Your task to perform on an android device: turn on improve location accuracy Image 0: 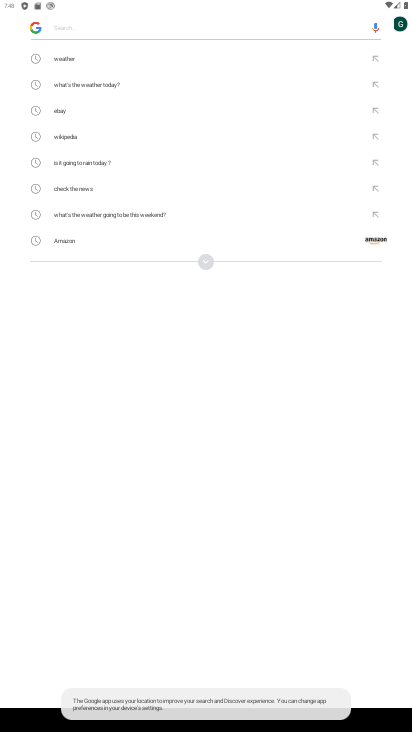
Step 0: press home button
Your task to perform on an android device: turn on improve location accuracy Image 1: 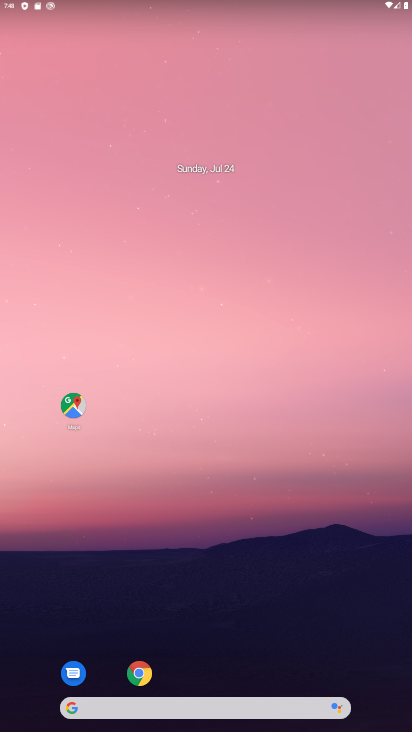
Step 1: drag from (270, 633) to (350, 6)
Your task to perform on an android device: turn on improve location accuracy Image 2: 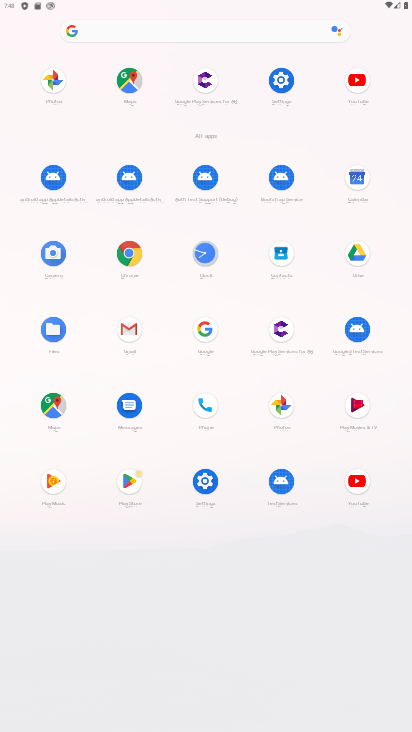
Step 2: click (283, 87)
Your task to perform on an android device: turn on improve location accuracy Image 3: 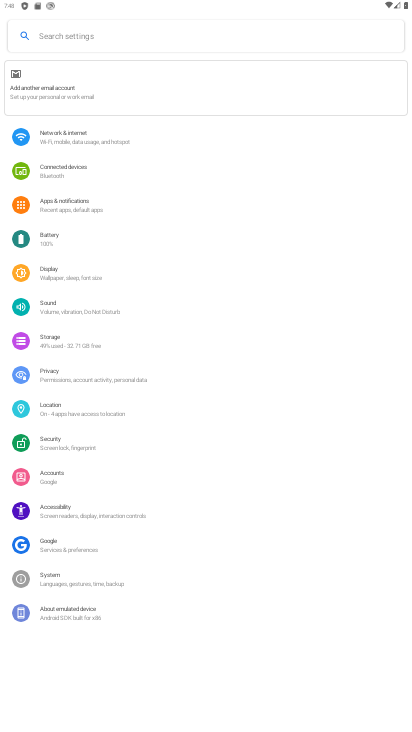
Step 3: click (83, 412)
Your task to perform on an android device: turn on improve location accuracy Image 4: 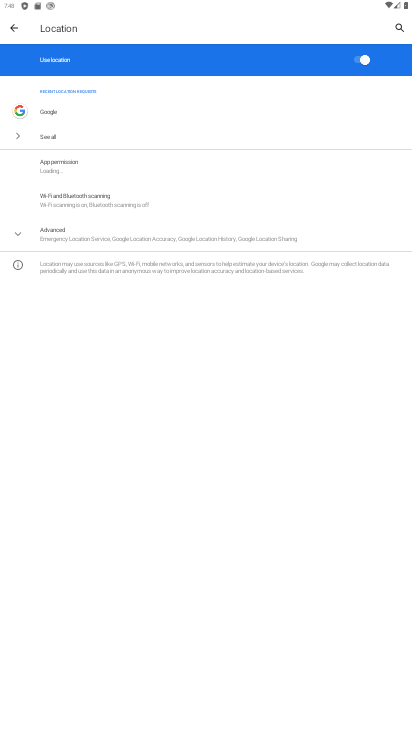
Step 4: click (130, 238)
Your task to perform on an android device: turn on improve location accuracy Image 5: 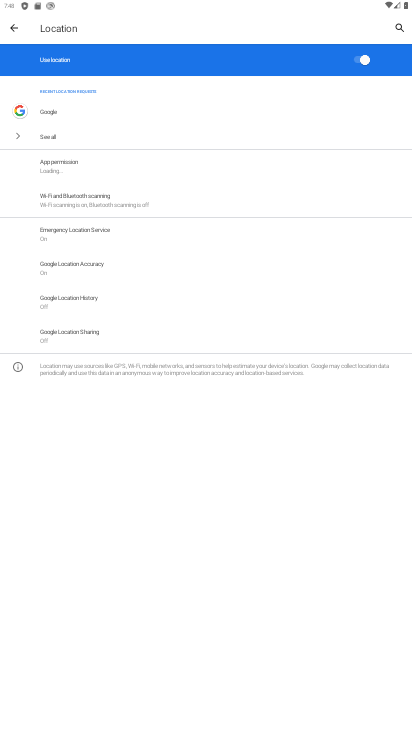
Step 5: click (105, 266)
Your task to perform on an android device: turn on improve location accuracy Image 6: 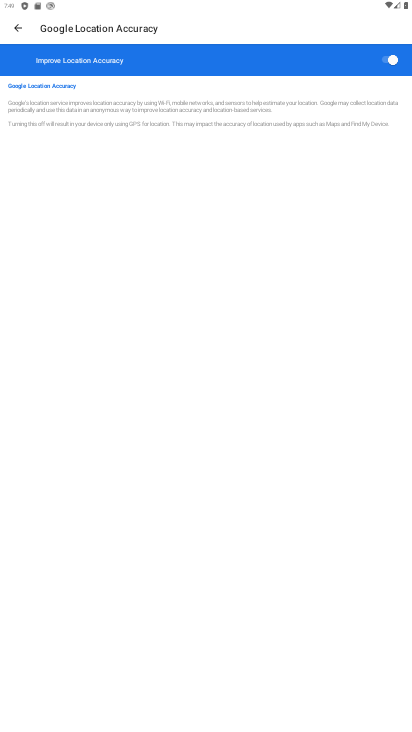
Step 6: task complete